Your task to perform on an android device: Open my contact list Image 0: 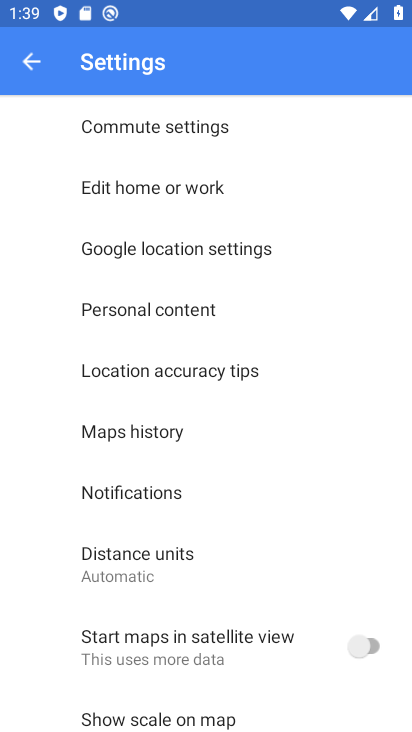
Step 0: press home button
Your task to perform on an android device: Open my contact list Image 1: 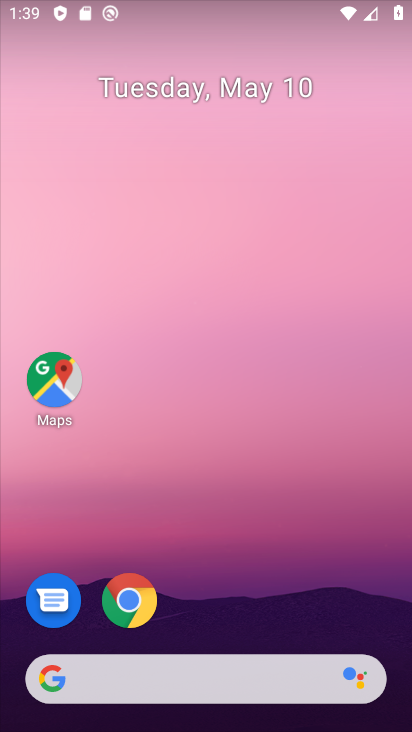
Step 1: drag from (234, 605) to (300, 123)
Your task to perform on an android device: Open my contact list Image 2: 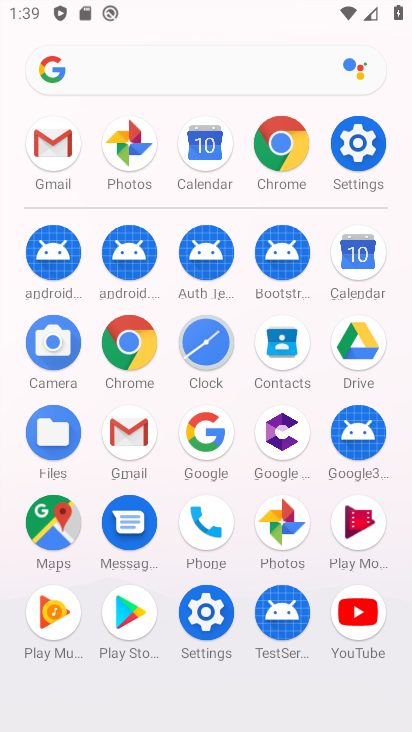
Step 2: click (284, 363)
Your task to perform on an android device: Open my contact list Image 3: 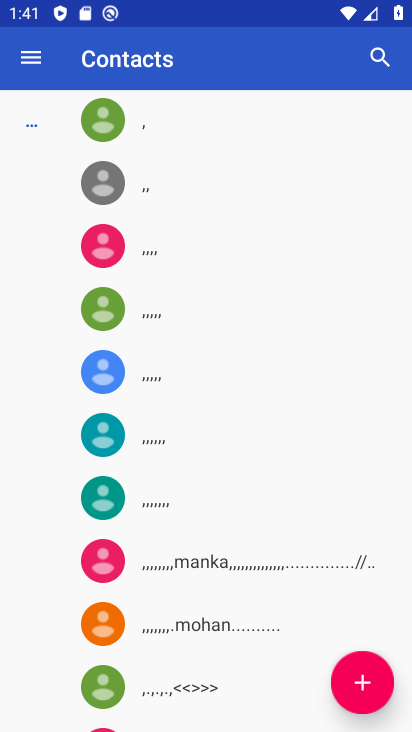
Step 3: task complete